Your task to perform on an android device: Play the last video I watched on Youtube Image 0: 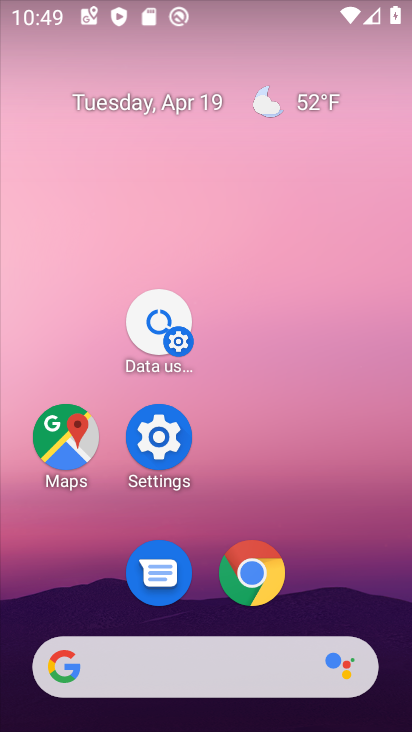
Step 0: drag from (369, 632) to (386, 17)
Your task to perform on an android device: Play the last video I watched on Youtube Image 1: 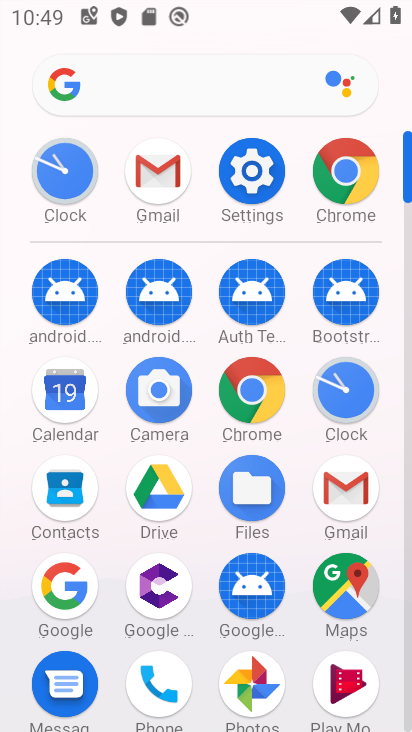
Step 1: click (407, 609)
Your task to perform on an android device: Play the last video I watched on Youtube Image 2: 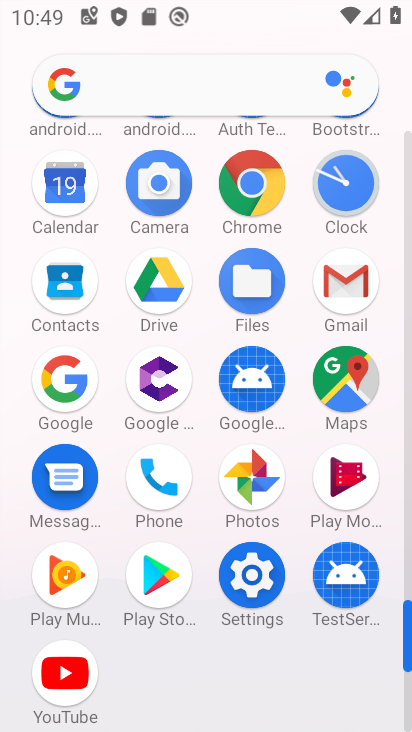
Step 2: click (68, 680)
Your task to perform on an android device: Play the last video I watched on Youtube Image 3: 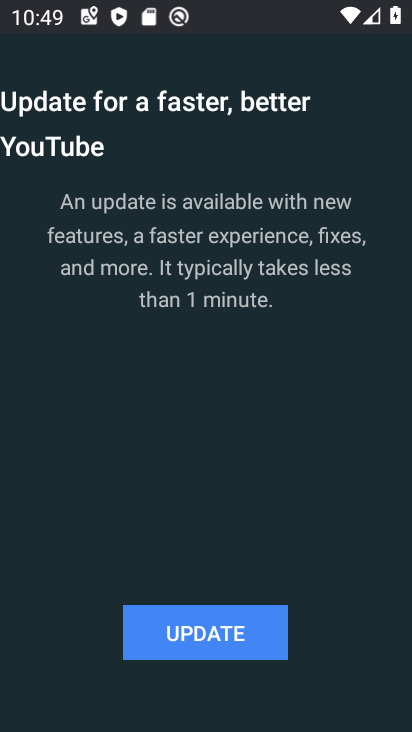
Step 3: click (216, 647)
Your task to perform on an android device: Play the last video I watched on Youtube Image 4: 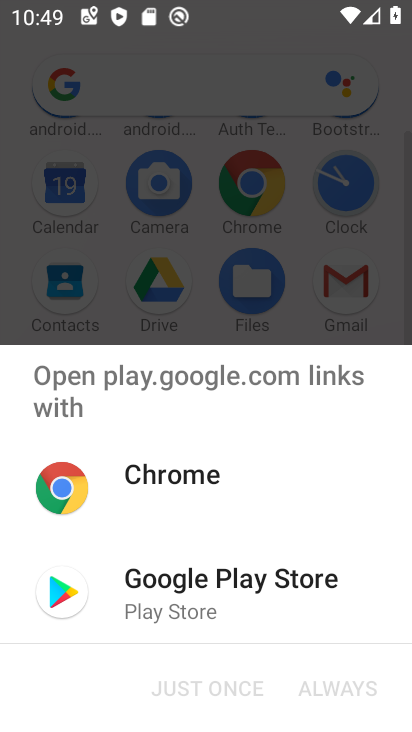
Step 4: click (196, 598)
Your task to perform on an android device: Play the last video I watched on Youtube Image 5: 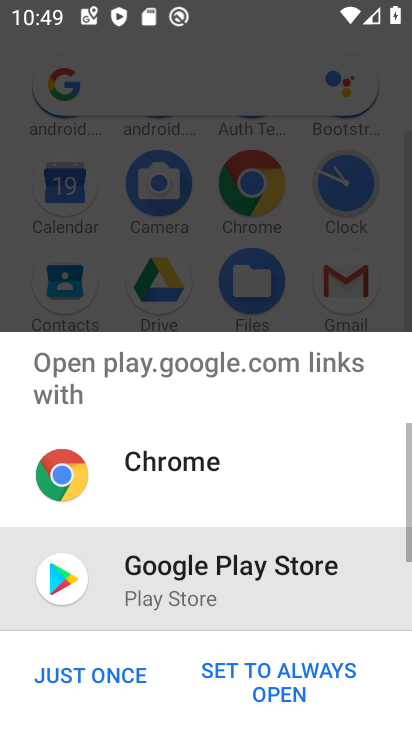
Step 5: click (127, 657)
Your task to perform on an android device: Play the last video I watched on Youtube Image 6: 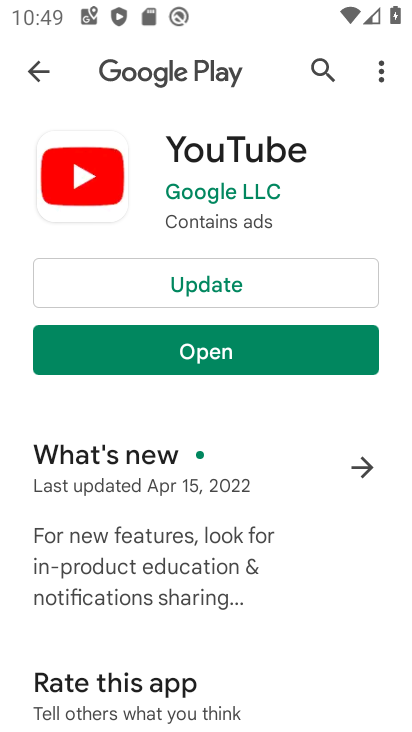
Step 6: click (186, 283)
Your task to perform on an android device: Play the last video I watched on Youtube Image 7: 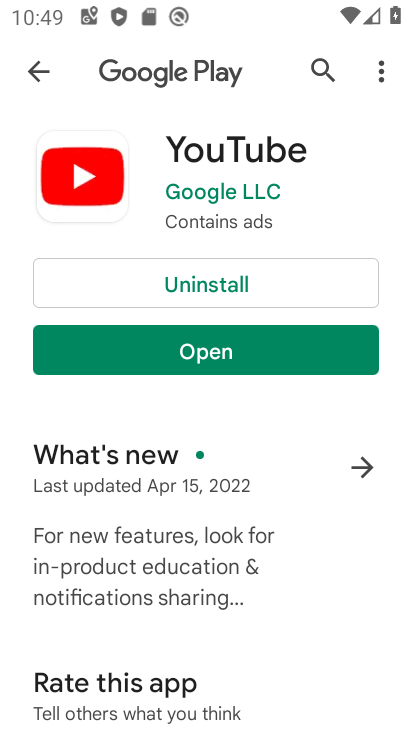
Step 7: click (195, 361)
Your task to perform on an android device: Play the last video I watched on Youtube Image 8: 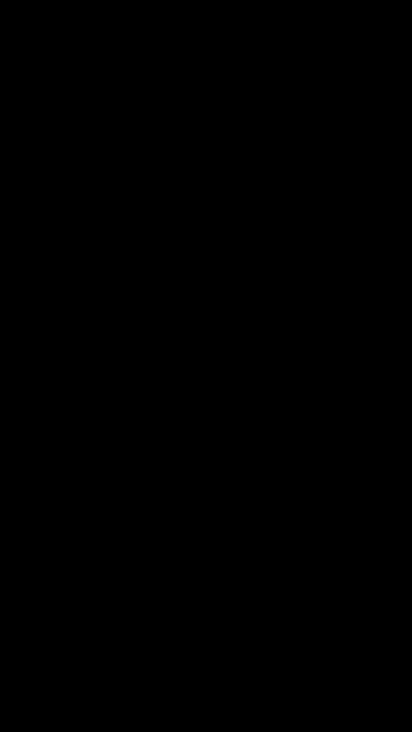
Step 8: click (46, 707)
Your task to perform on an android device: Play the last video I watched on Youtube Image 9: 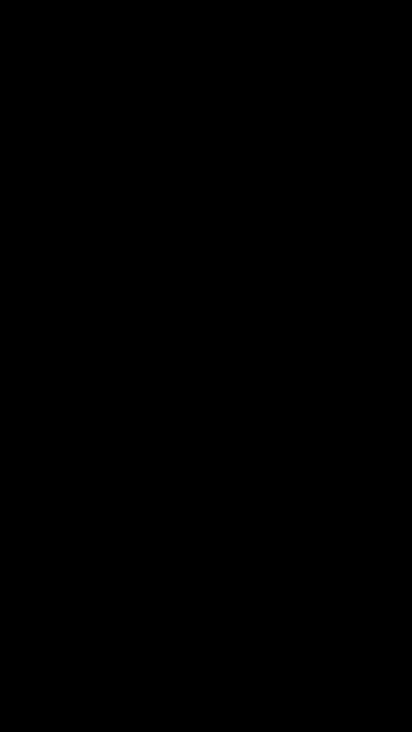
Step 9: drag from (218, 565) to (186, 240)
Your task to perform on an android device: Play the last video I watched on Youtube Image 10: 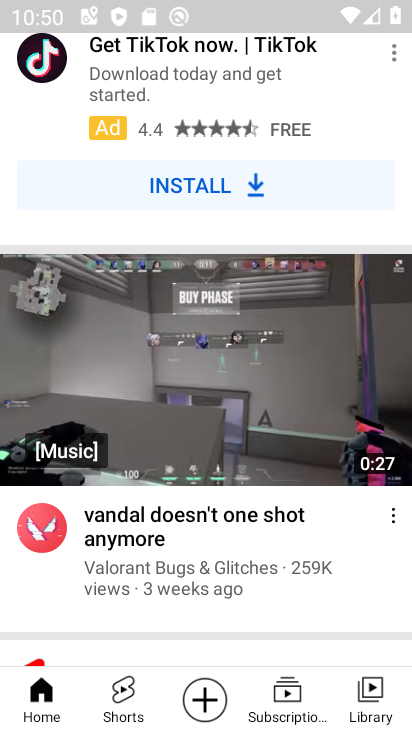
Step 10: click (388, 51)
Your task to perform on an android device: Play the last video I watched on Youtube Image 11: 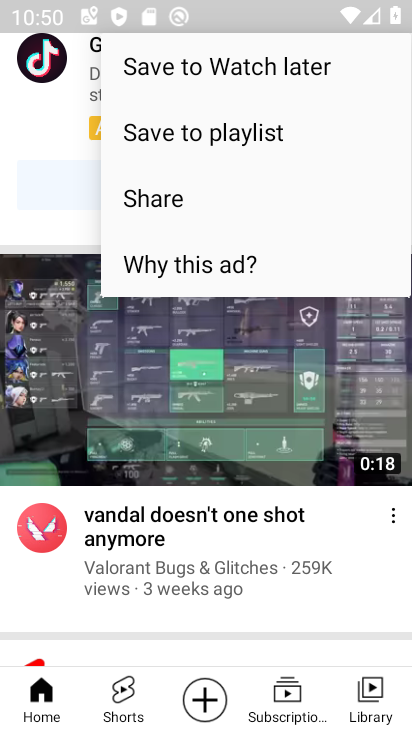
Step 11: task complete